Your task to perform on an android device: clear all cookies in the chrome app Image 0: 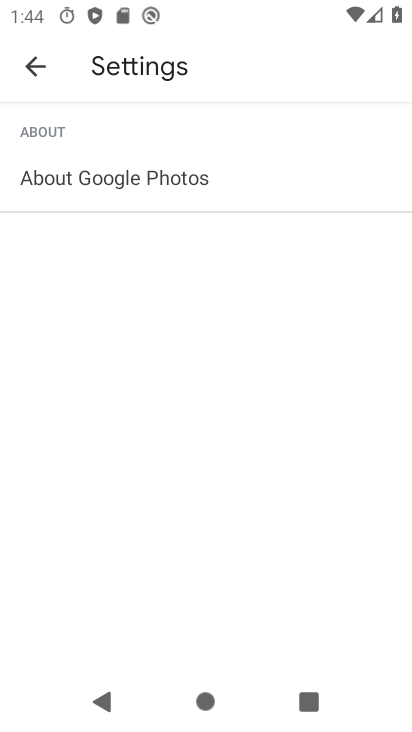
Step 0: press home button
Your task to perform on an android device: clear all cookies in the chrome app Image 1: 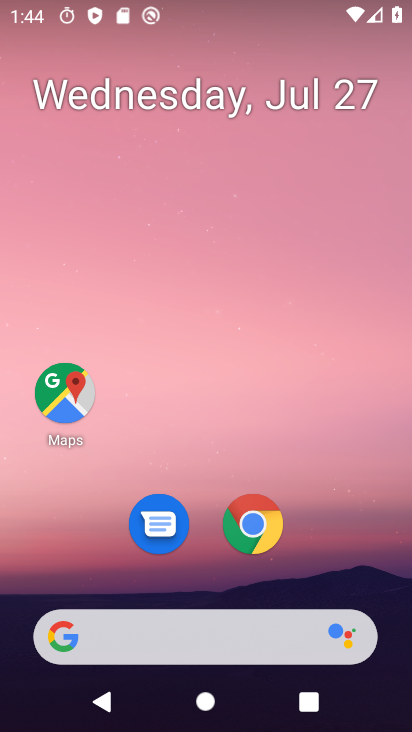
Step 1: click (263, 513)
Your task to perform on an android device: clear all cookies in the chrome app Image 2: 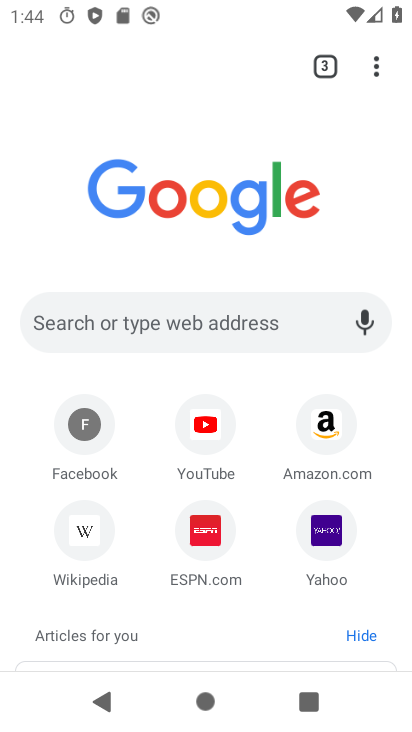
Step 2: click (374, 67)
Your task to perform on an android device: clear all cookies in the chrome app Image 3: 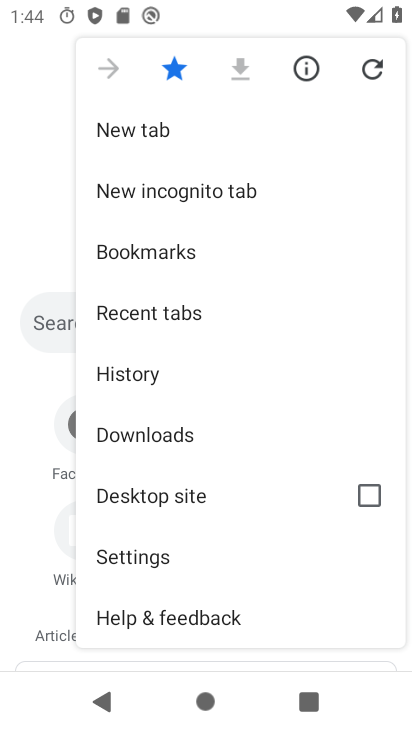
Step 3: click (158, 552)
Your task to perform on an android device: clear all cookies in the chrome app Image 4: 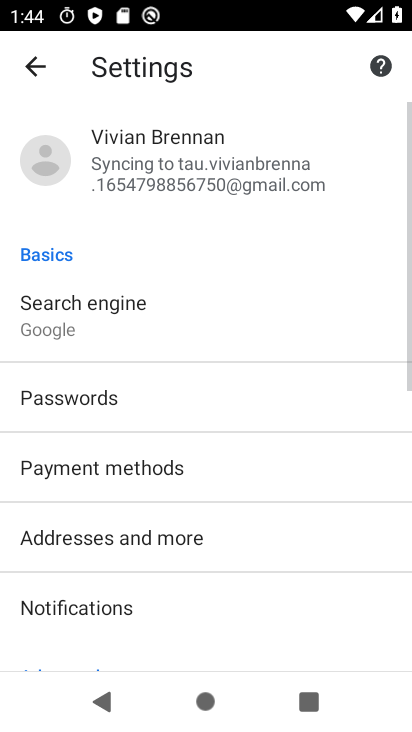
Step 4: drag from (264, 518) to (336, 200)
Your task to perform on an android device: clear all cookies in the chrome app Image 5: 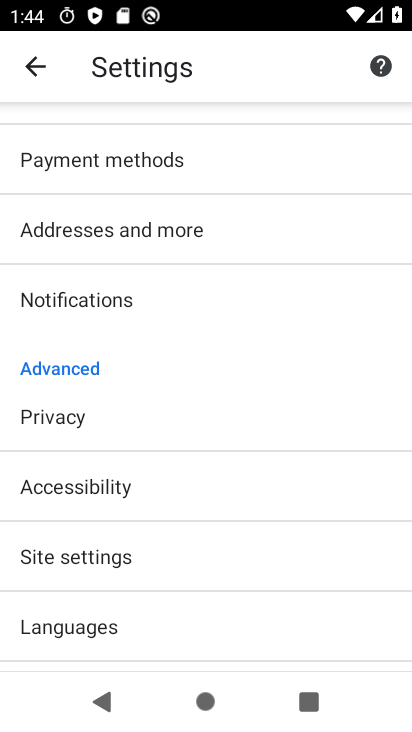
Step 5: click (73, 418)
Your task to perform on an android device: clear all cookies in the chrome app Image 6: 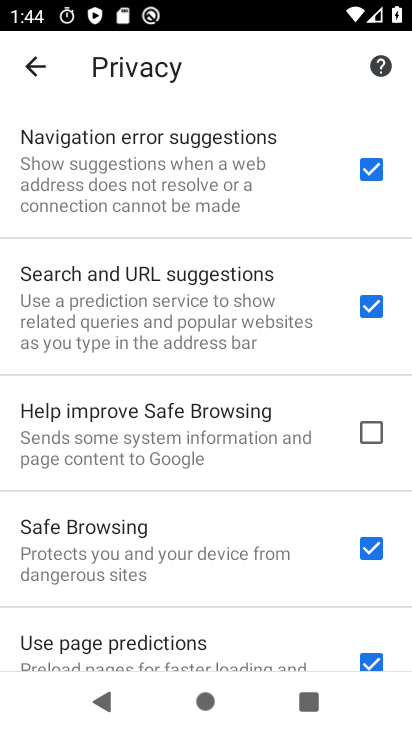
Step 6: drag from (239, 603) to (297, 47)
Your task to perform on an android device: clear all cookies in the chrome app Image 7: 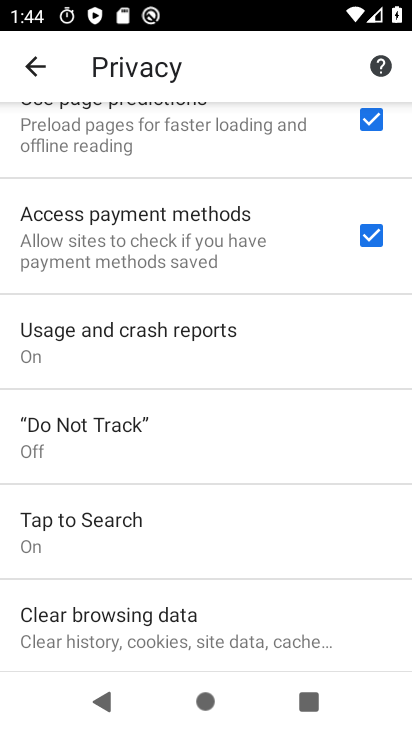
Step 7: click (187, 626)
Your task to perform on an android device: clear all cookies in the chrome app Image 8: 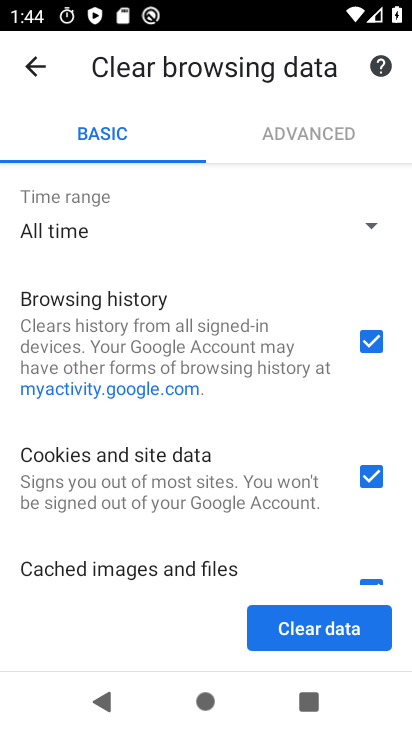
Step 8: click (378, 329)
Your task to perform on an android device: clear all cookies in the chrome app Image 9: 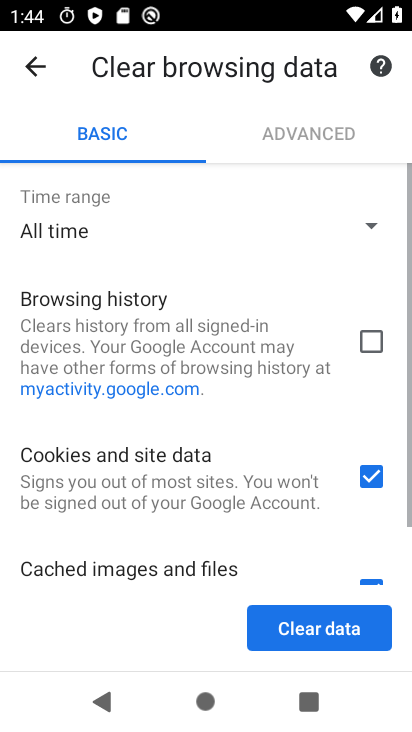
Step 9: drag from (252, 489) to (264, 318)
Your task to perform on an android device: clear all cookies in the chrome app Image 10: 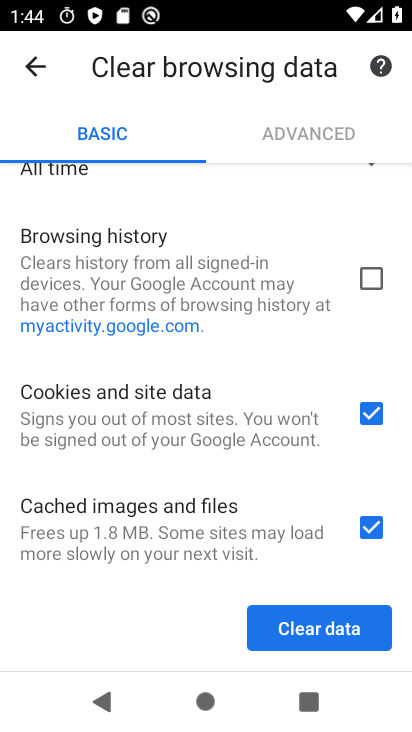
Step 10: click (364, 523)
Your task to perform on an android device: clear all cookies in the chrome app Image 11: 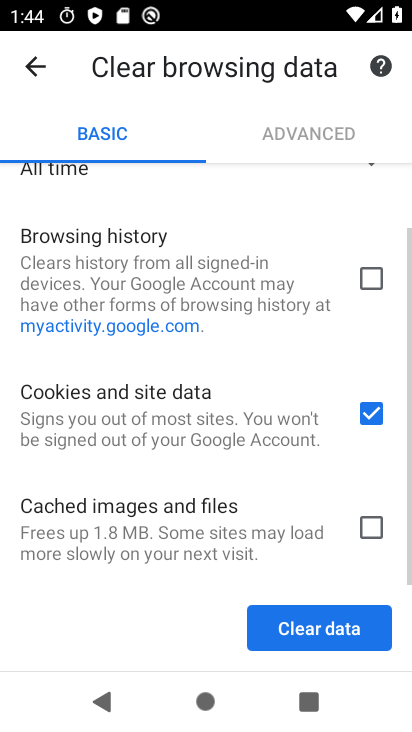
Step 11: click (339, 624)
Your task to perform on an android device: clear all cookies in the chrome app Image 12: 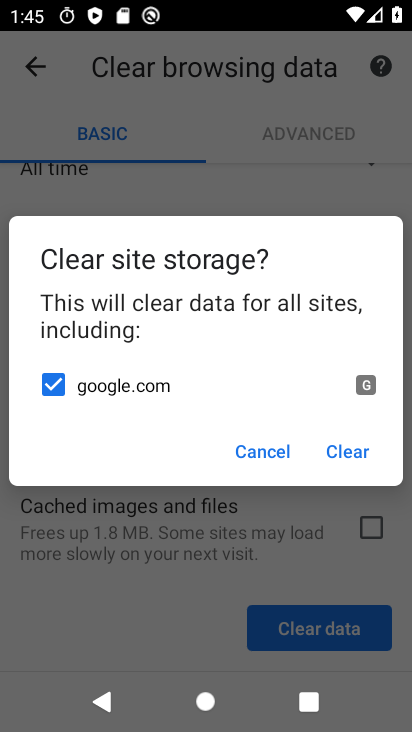
Step 12: click (358, 445)
Your task to perform on an android device: clear all cookies in the chrome app Image 13: 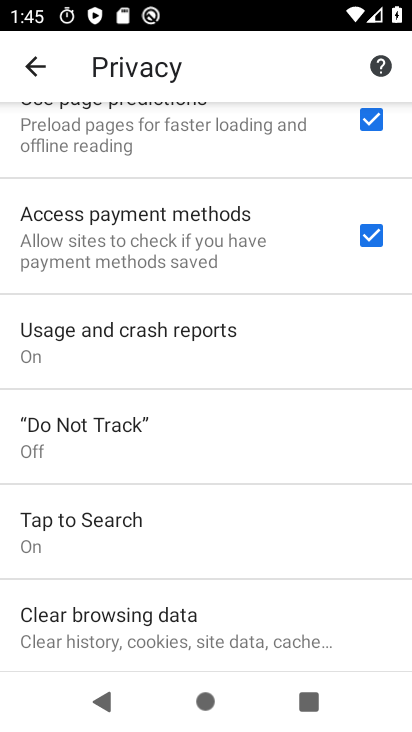
Step 13: task complete